Your task to perform on an android device: Check the weather Image 0: 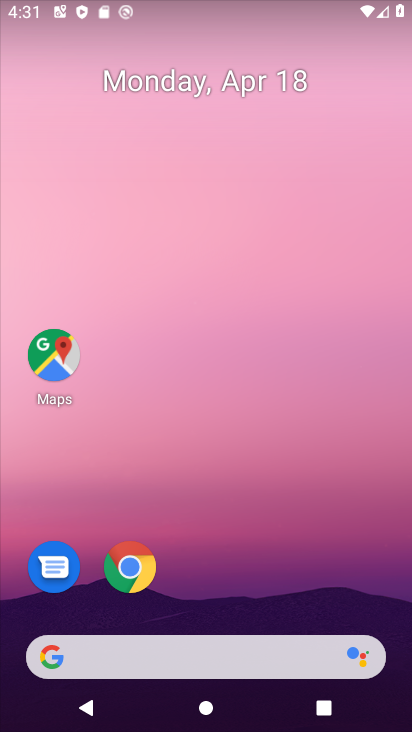
Step 0: drag from (189, 103) to (24, 103)
Your task to perform on an android device: Check the weather Image 1: 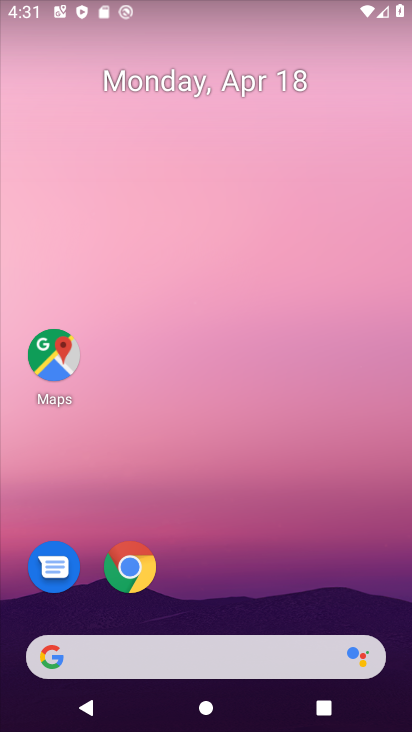
Step 1: drag from (259, 192) to (30, 117)
Your task to perform on an android device: Check the weather Image 2: 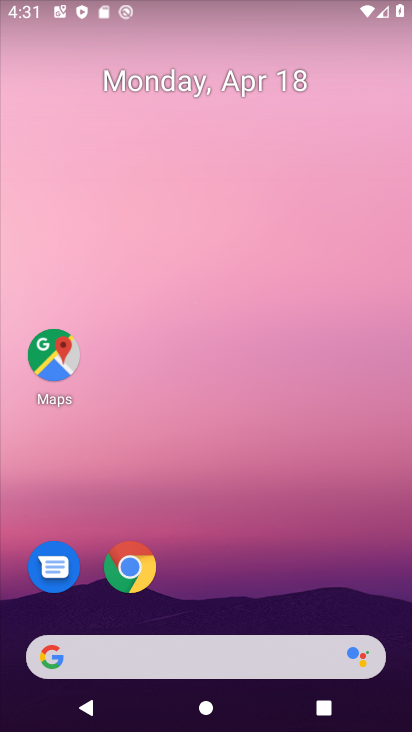
Step 2: drag from (230, 666) to (152, 140)
Your task to perform on an android device: Check the weather Image 3: 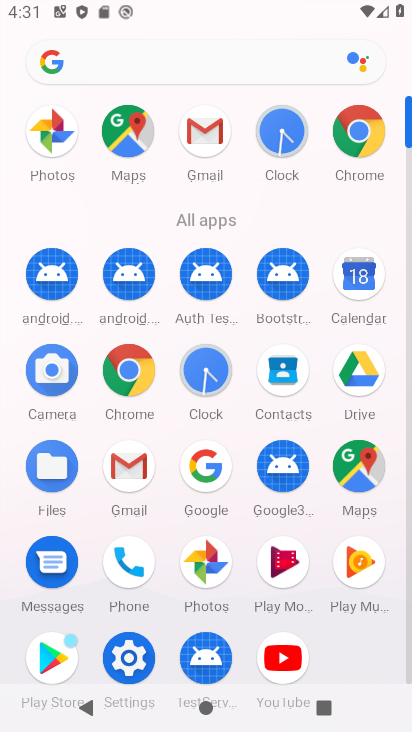
Step 3: click (130, 646)
Your task to perform on an android device: Check the weather Image 4: 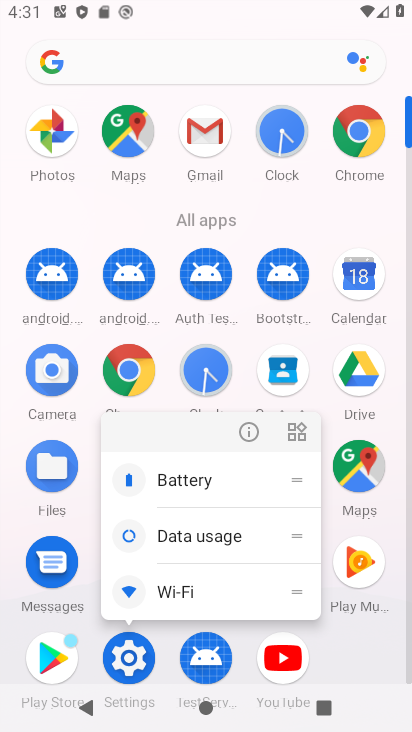
Step 4: click (130, 646)
Your task to perform on an android device: Check the weather Image 5: 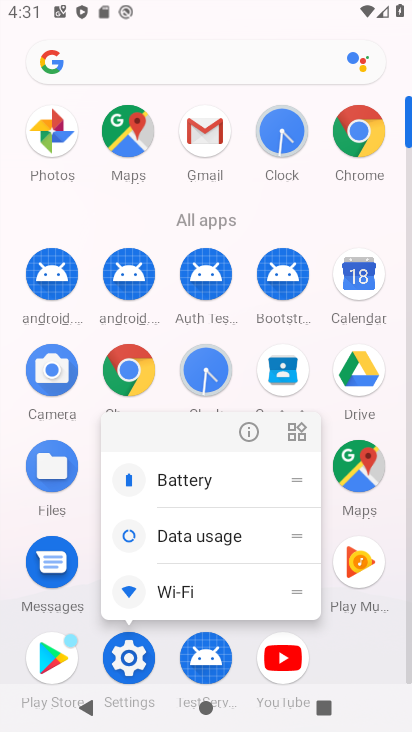
Step 5: click (130, 646)
Your task to perform on an android device: Check the weather Image 6: 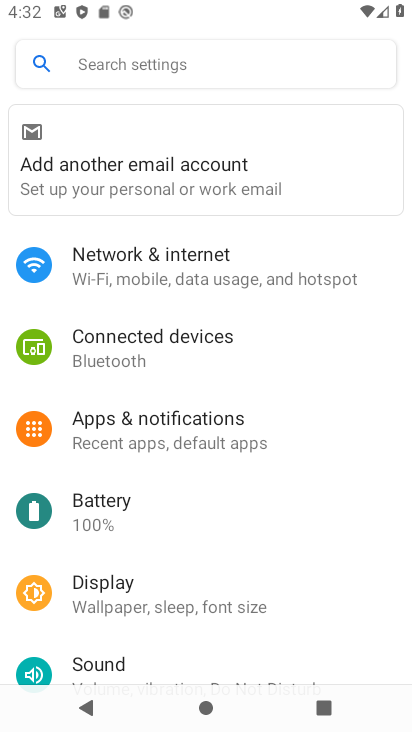
Step 6: task complete